Your task to perform on an android device: Open Android settings Image 0: 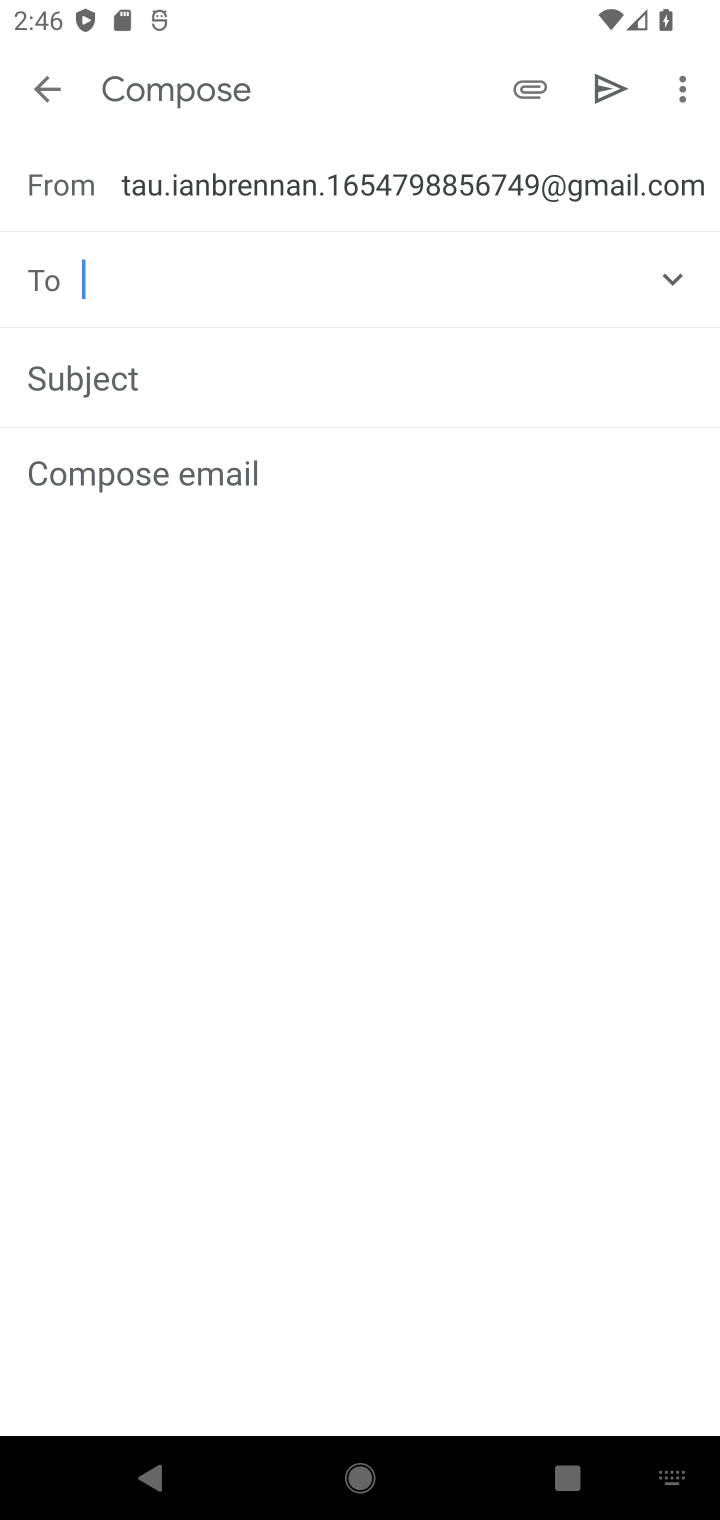
Step 0: press home button
Your task to perform on an android device: Open Android settings Image 1: 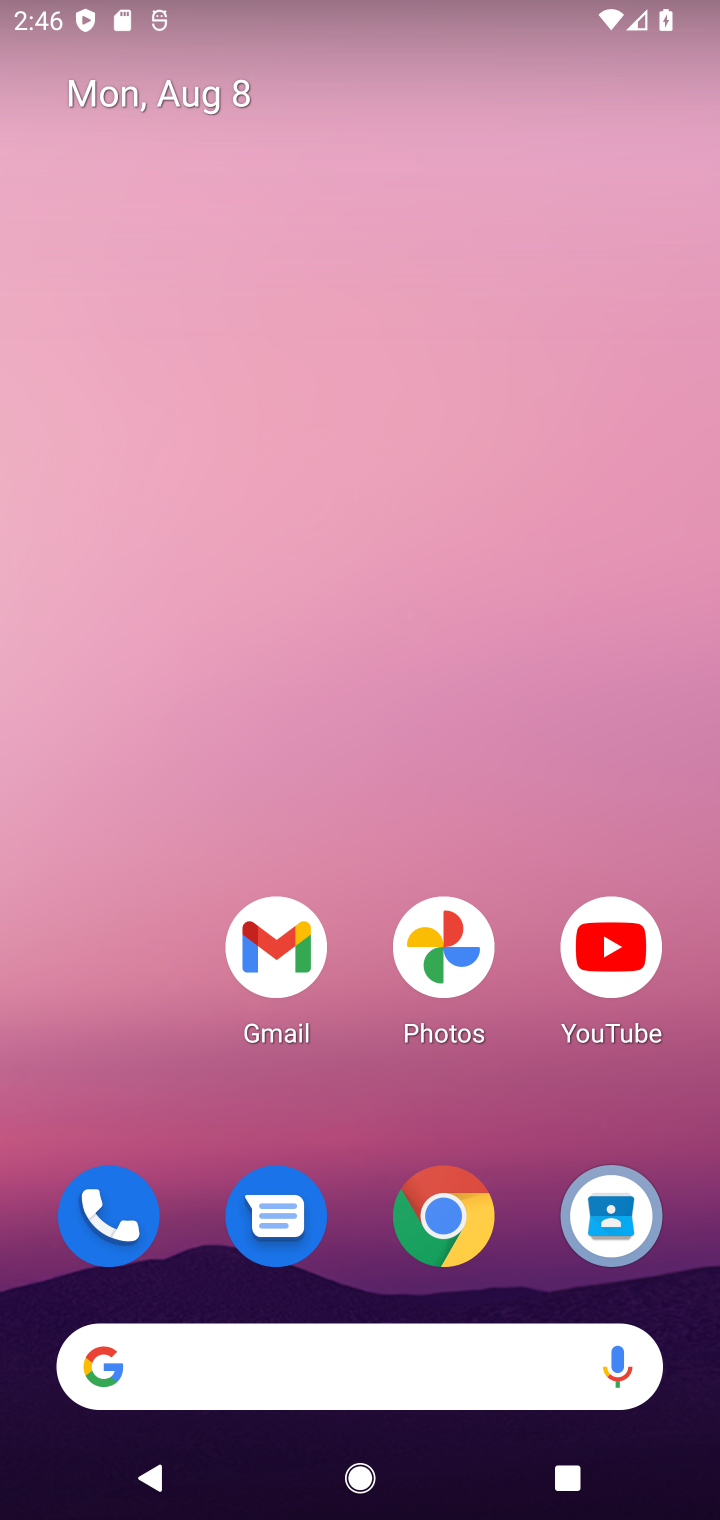
Step 1: drag from (535, 1146) to (448, 262)
Your task to perform on an android device: Open Android settings Image 2: 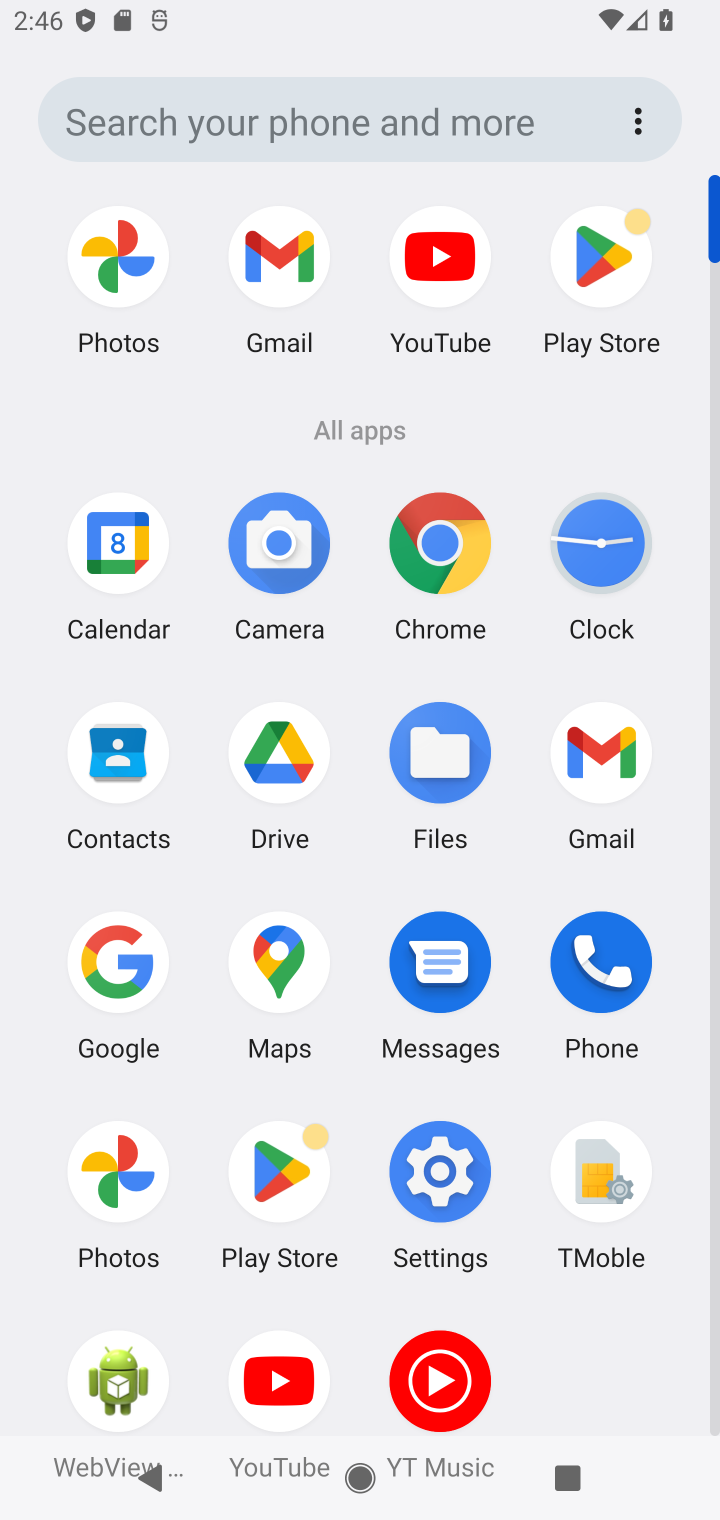
Step 2: click (428, 1188)
Your task to perform on an android device: Open Android settings Image 3: 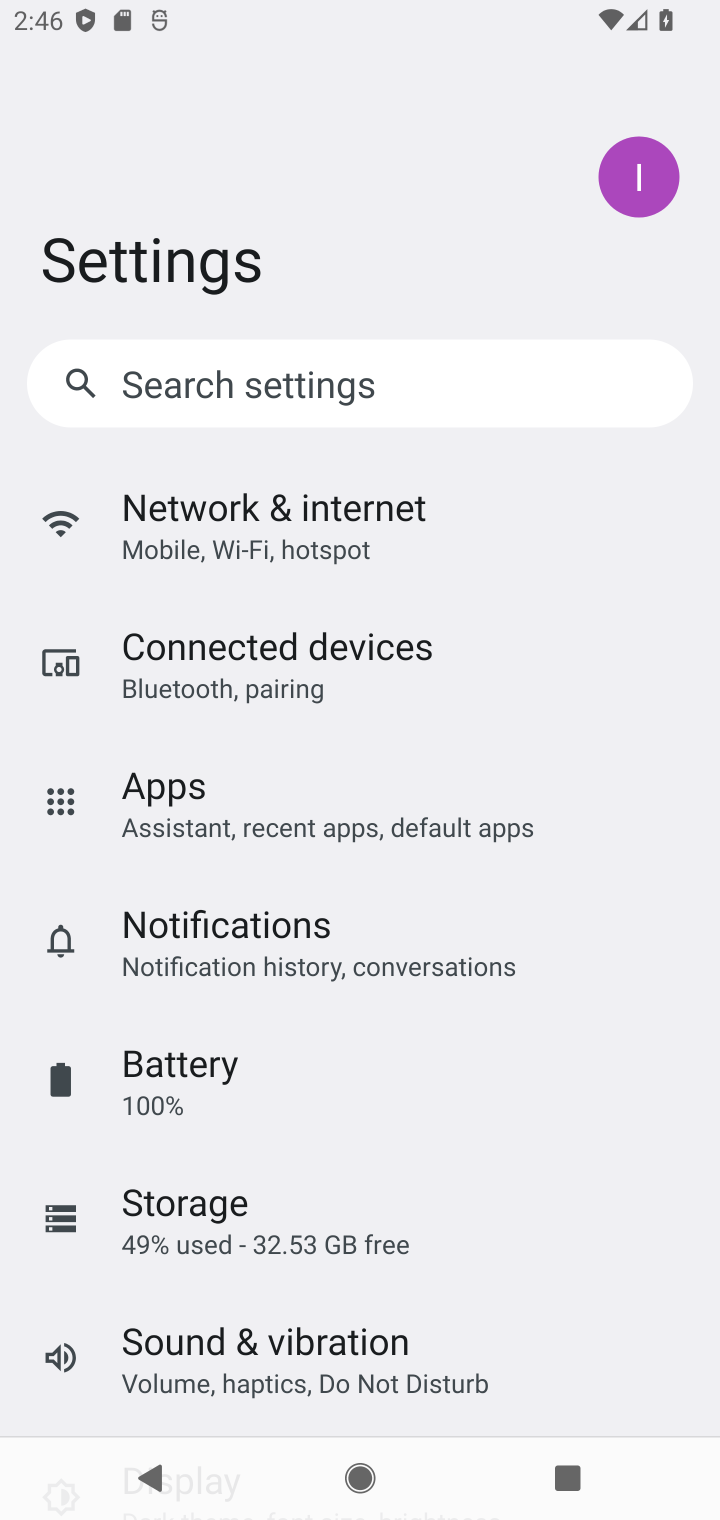
Step 3: task complete